Your task to perform on an android device: open app "Lyft - Rideshare, Bikes, Scooters & Transit" Image 0: 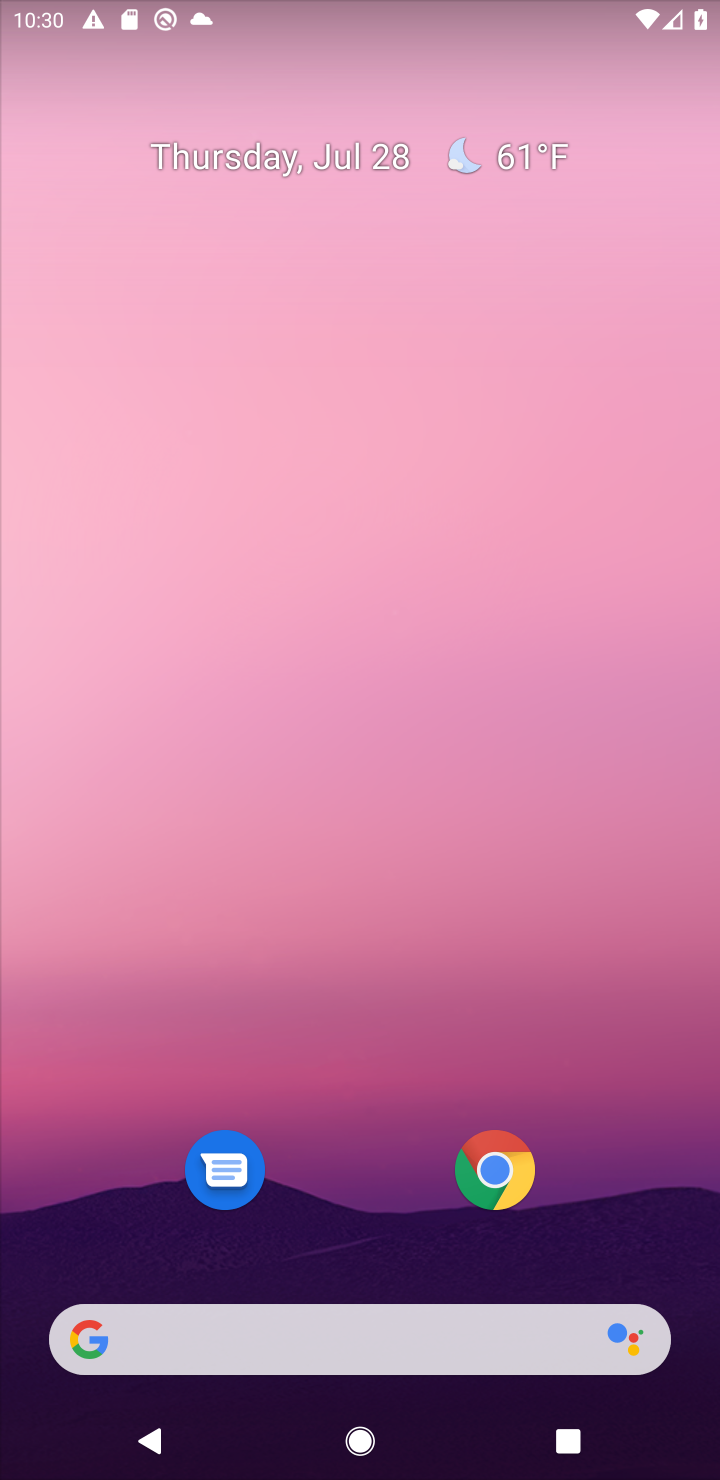
Step 0: drag from (334, 1178) to (375, 0)
Your task to perform on an android device: open app "Lyft - Rideshare, Bikes, Scooters & Transit" Image 1: 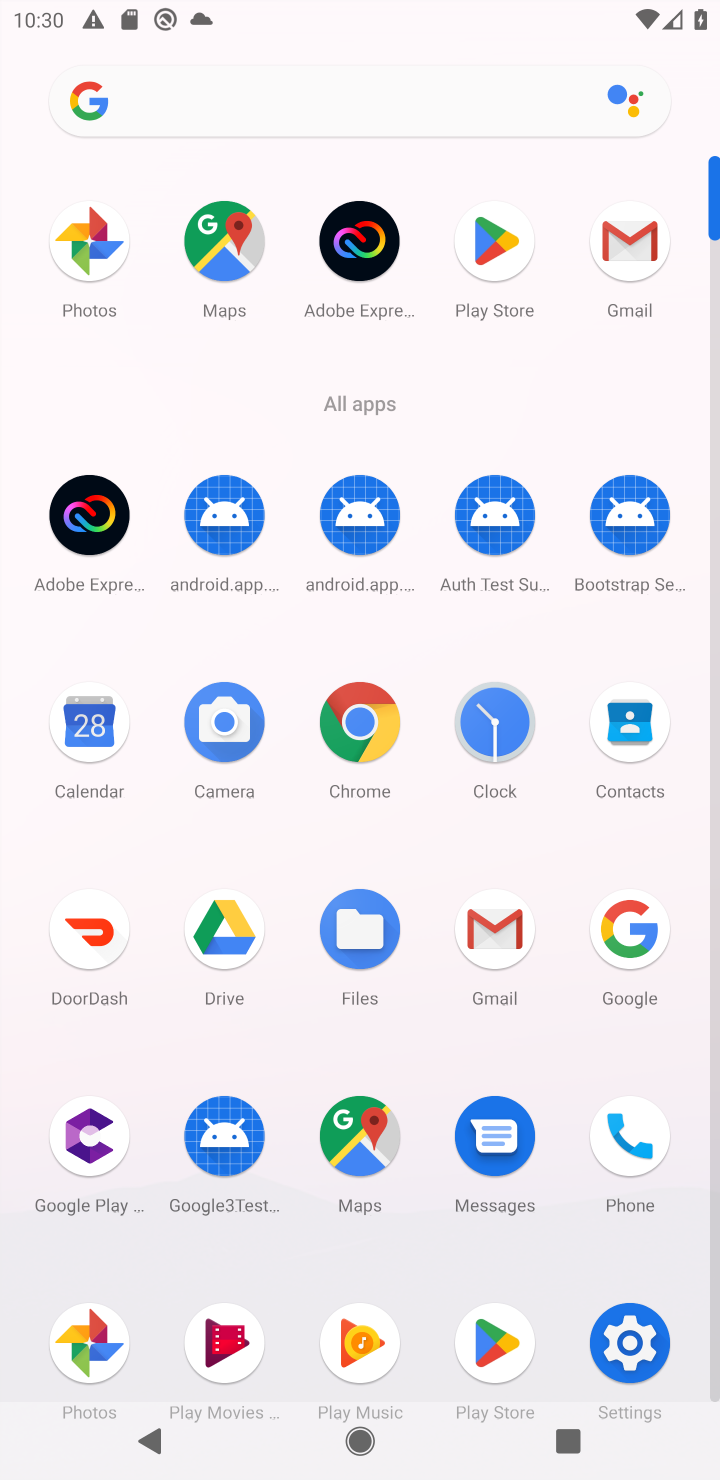
Step 1: click (471, 1351)
Your task to perform on an android device: open app "Lyft - Rideshare, Bikes, Scooters & Transit" Image 2: 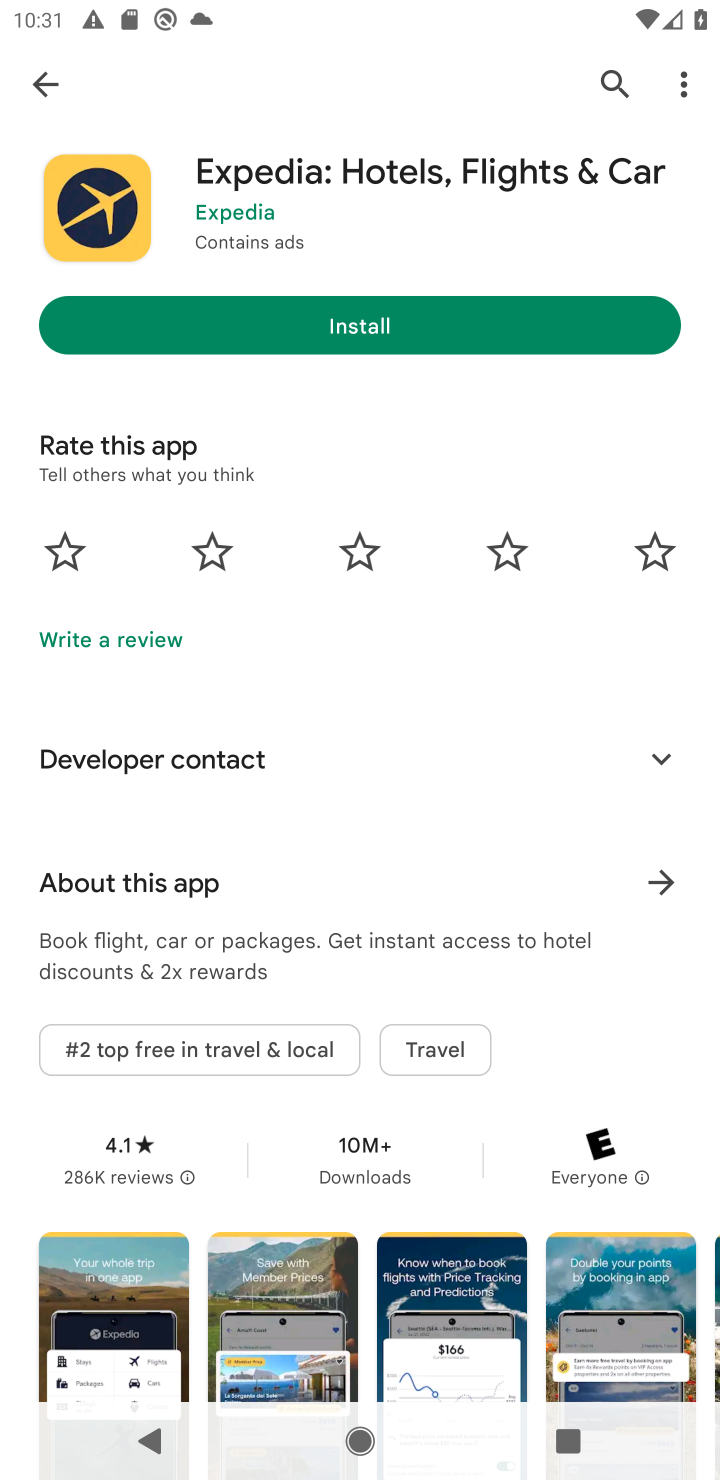
Step 2: click (32, 77)
Your task to perform on an android device: open app "Lyft - Rideshare, Bikes, Scooters & Transit" Image 3: 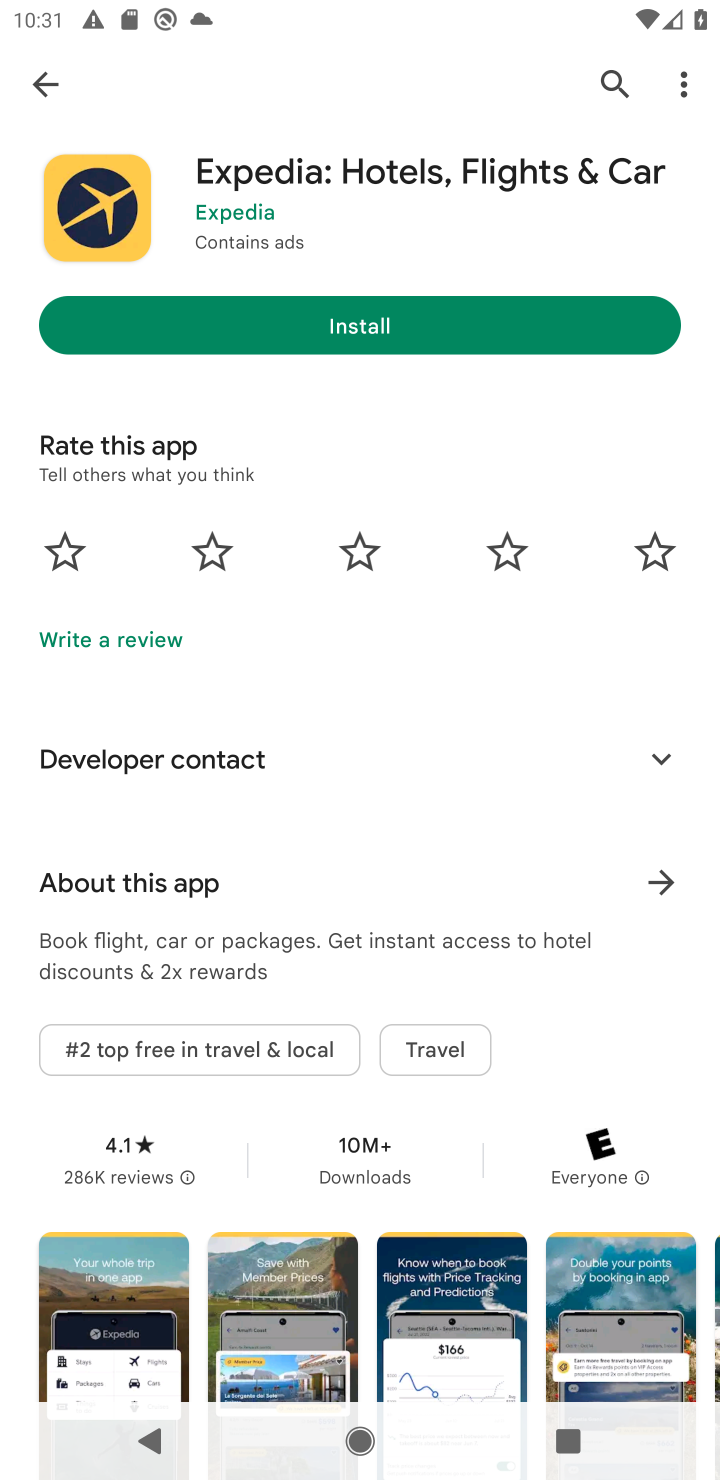
Step 3: click (43, 83)
Your task to perform on an android device: open app "Lyft - Rideshare, Bikes, Scooters & Transit" Image 4: 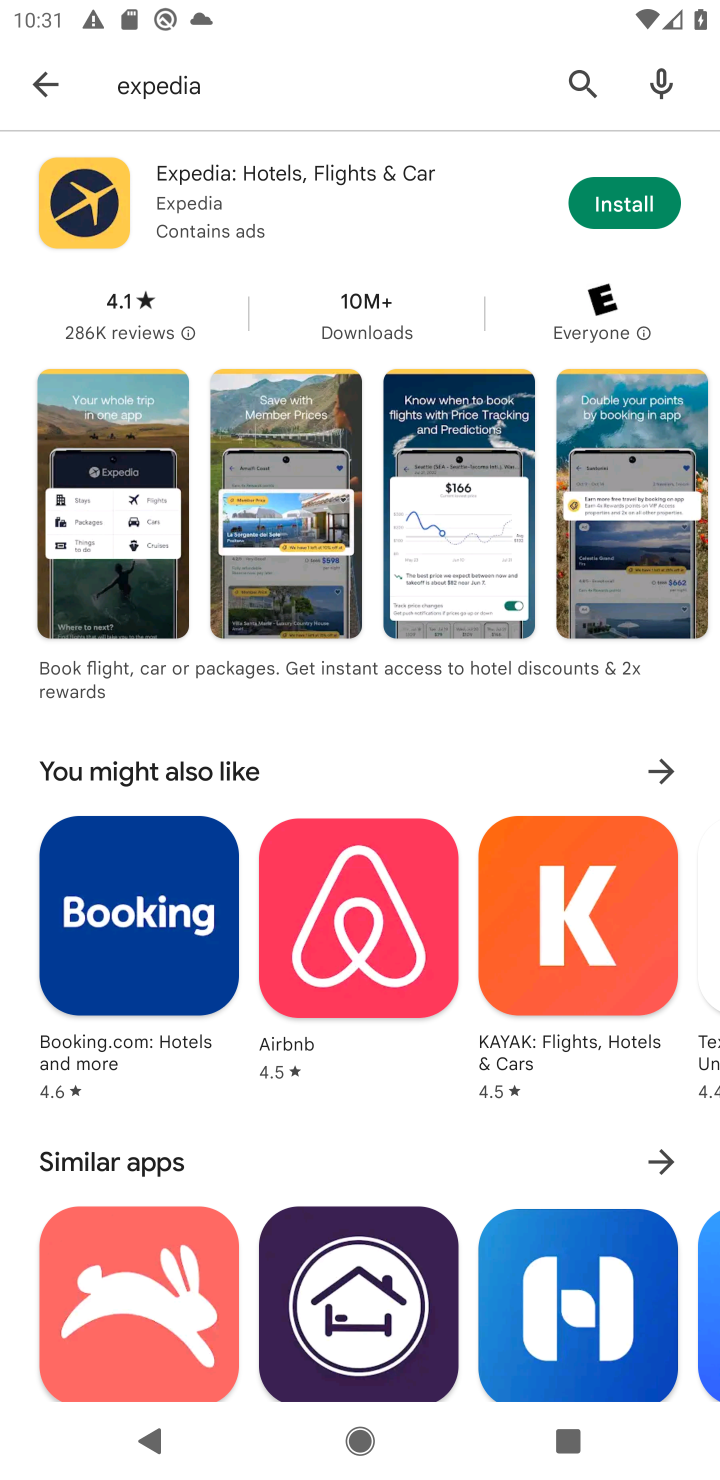
Step 4: click (182, 93)
Your task to perform on an android device: open app "Lyft - Rideshare, Bikes, Scooters & Transit" Image 5: 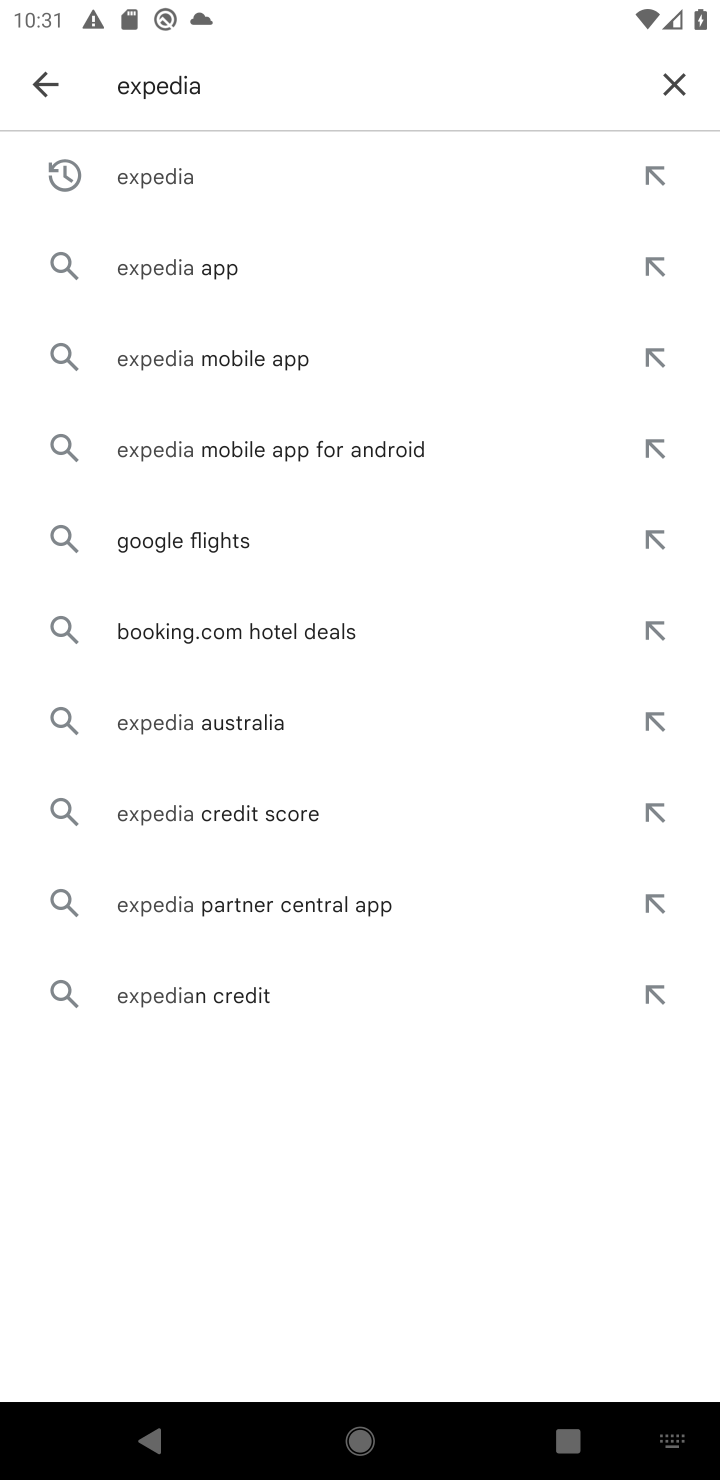
Step 5: click (685, 72)
Your task to perform on an android device: open app "Lyft - Rideshare, Bikes, Scooters & Transit" Image 6: 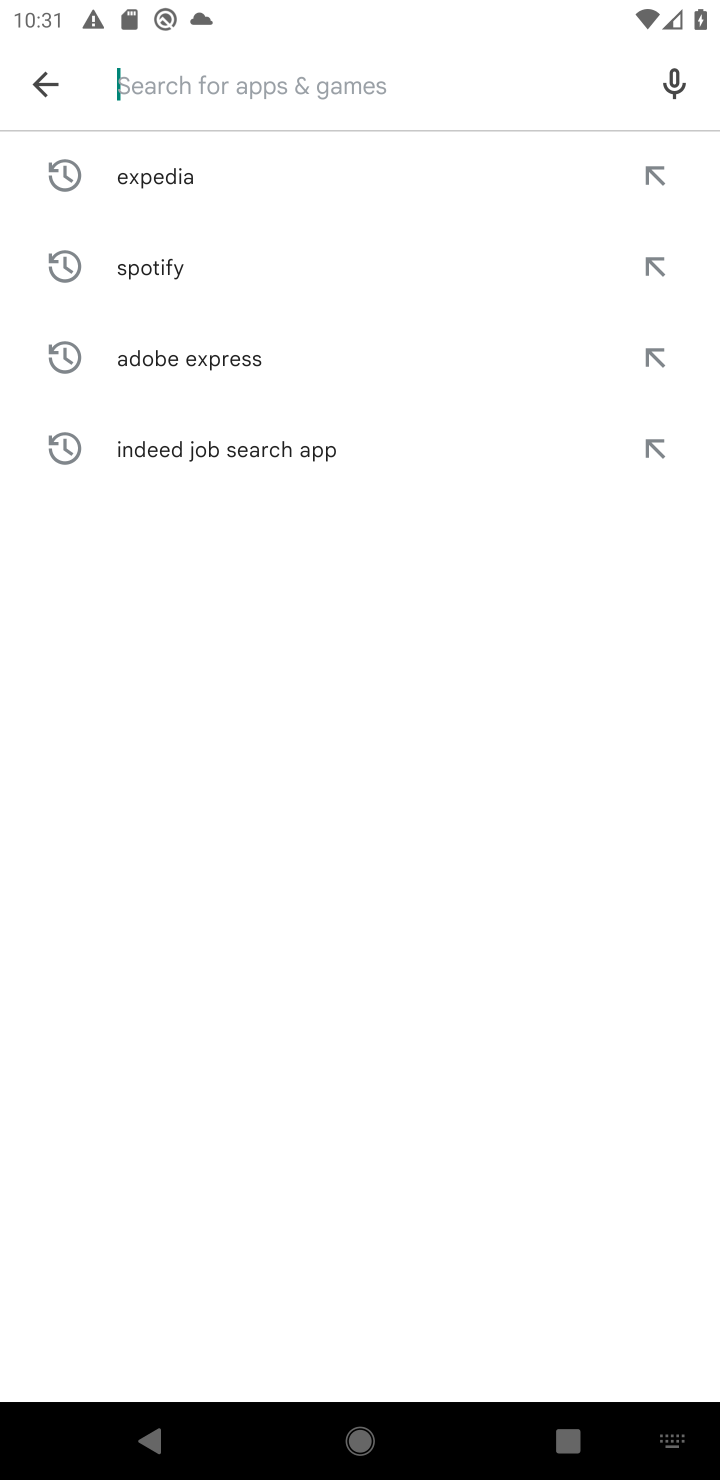
Step 6: type "Lyft"
Your task to perform on an android device: open app "Lyft - Rideshare, Bikes, Scooters & Transit" Image 7: 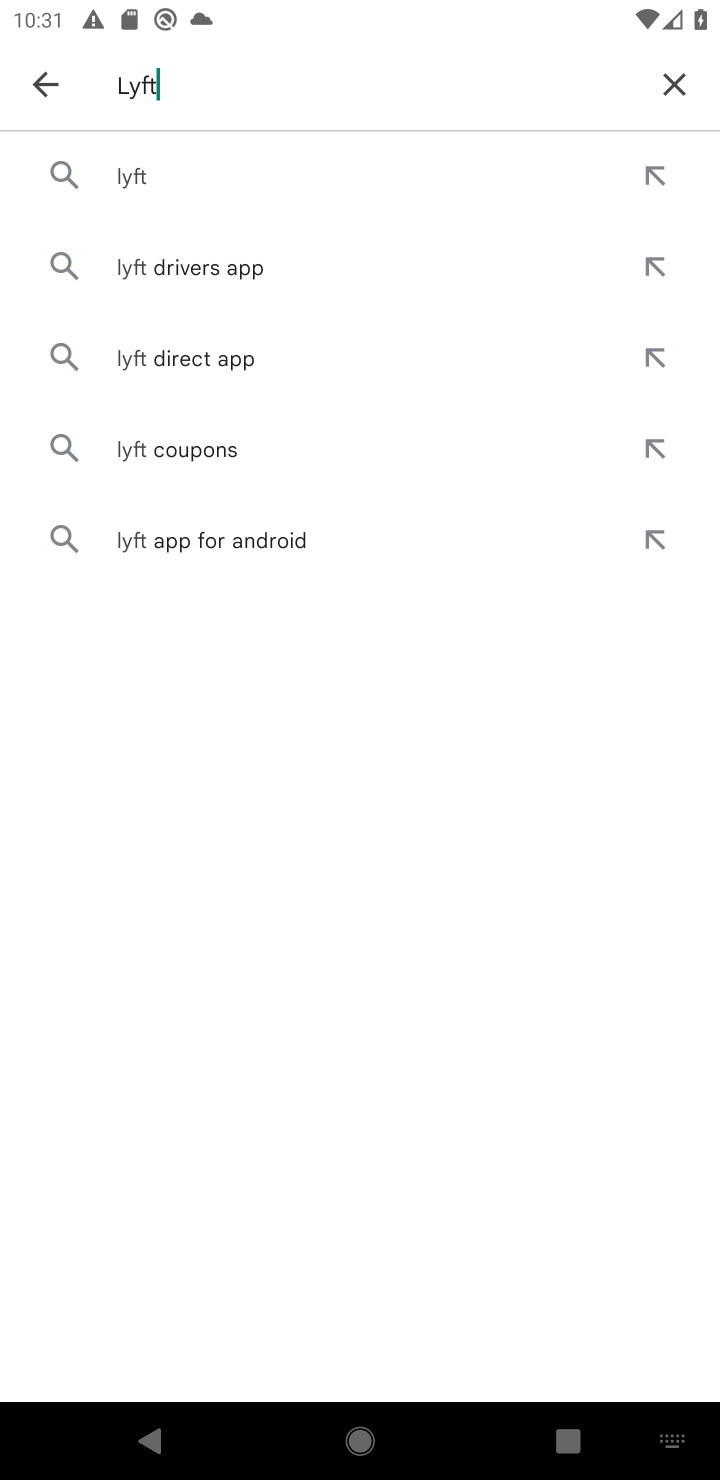
Step 7: click (212, 186)
Your task to perform on an android device: open app "Lyft - Rideshare, Bikes, Scooters & Transit" Image 8: 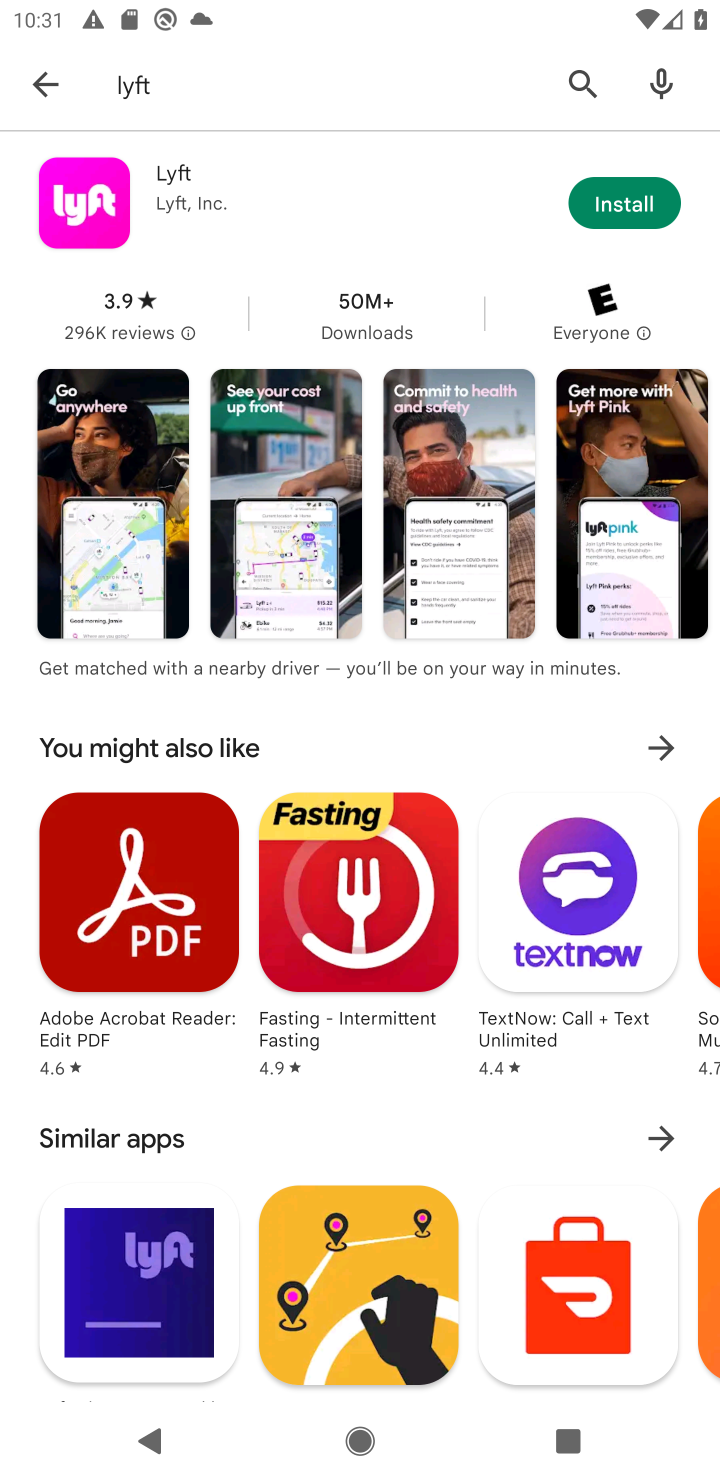
Step 8: task complete